Your task to perform on an android device: When is my next meeting? Image 0: 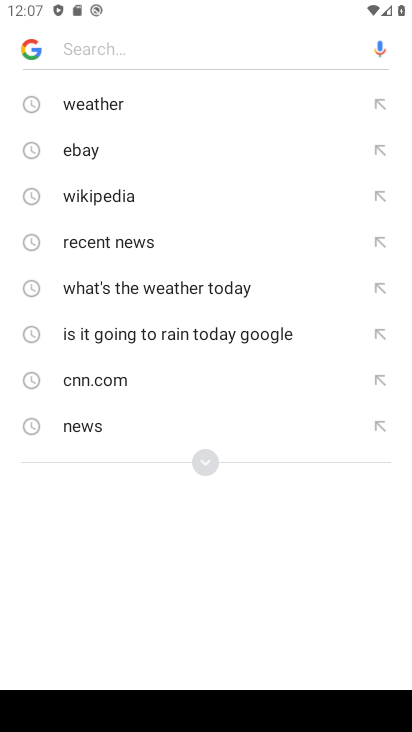
Step 0: press home button
Your task to perform on an android device: When is my next meeting? Image 1: 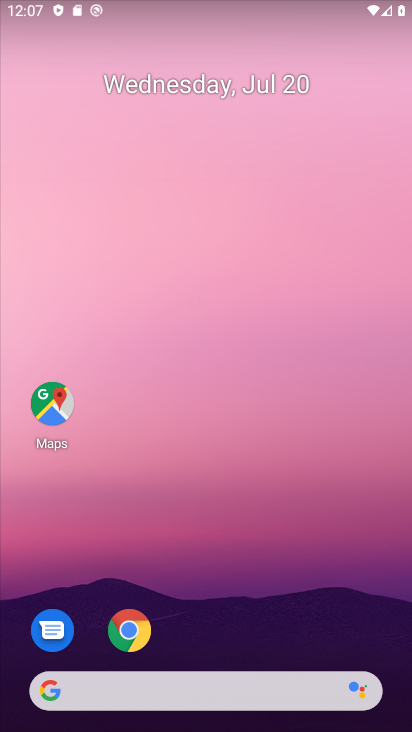
Step 1: drag from (149, 667) to (309, 125)
Your task to perform on an android device: When is my next meeting? Image 2: 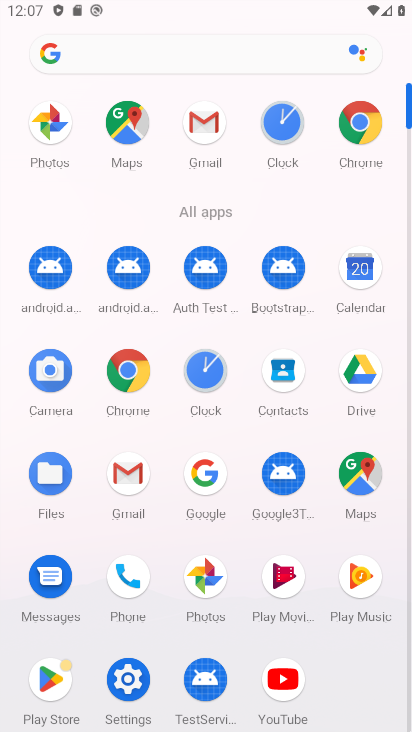
Step 2: click (362, 275)
Your task to perform on an android device: When is my next meeting? Image 3: 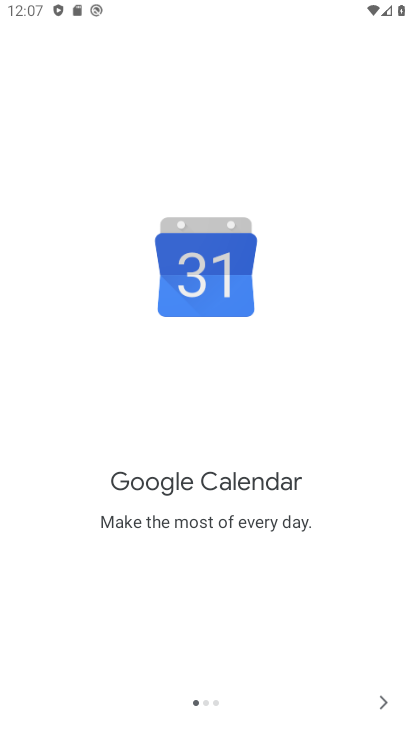
Step 3: click (382, 698)
Your task to perform on an android device: When is my next meeting? Image 4: 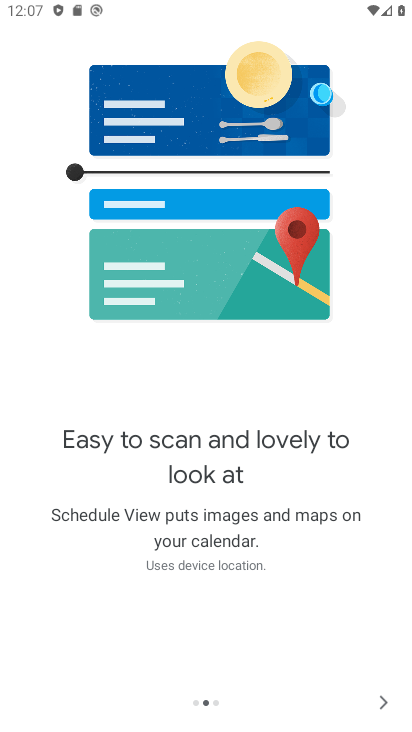
Step 4: click (382, 698)
Your task to perform on an android device: When is my next meeting? Image 5: 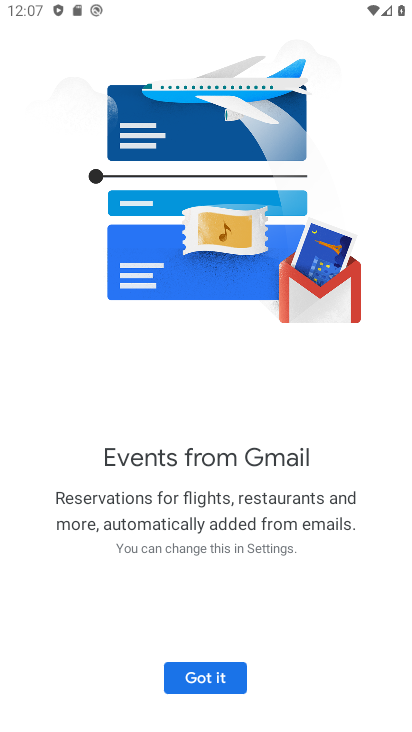
Step 5: click (208, 677)
Your task to perform on an android device: When is my next meeting? Image 6: 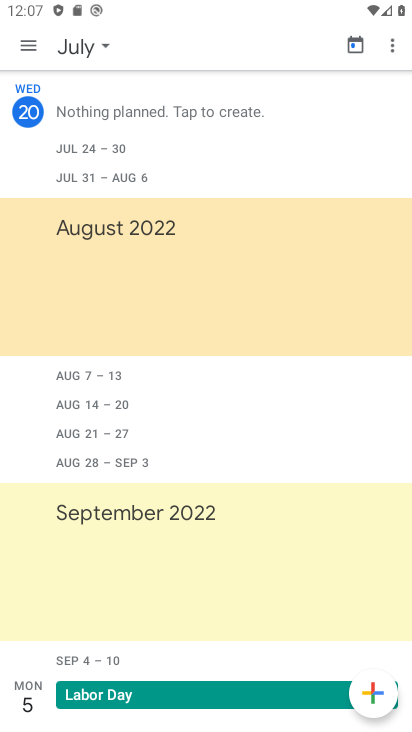
Step 6: task complete